Your task to perform on an android device: turn off wifi Image 0: 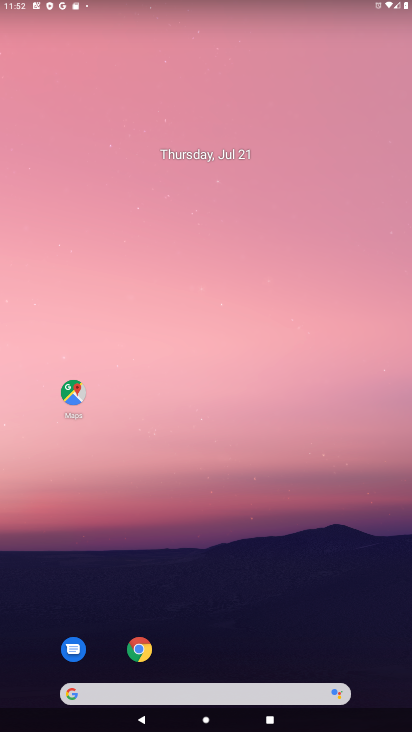
Step 0: drag from (238, 648) to (286, 218)
Your task to perform on an android device: turn off wifi Image 1: 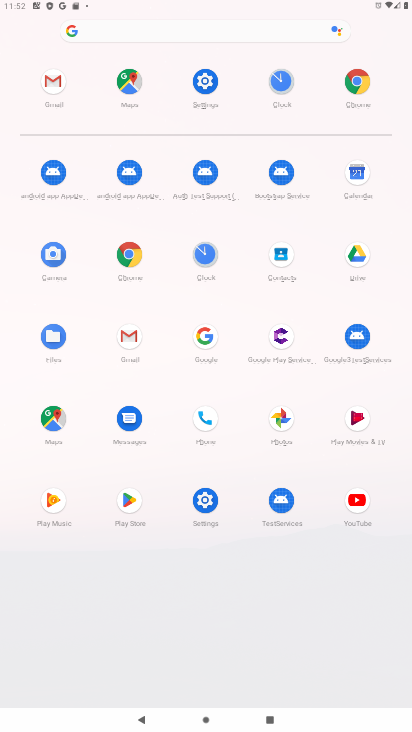
Step 1: click (202, 78)
Your task to perform on an android device: turn off wifi Image 2: 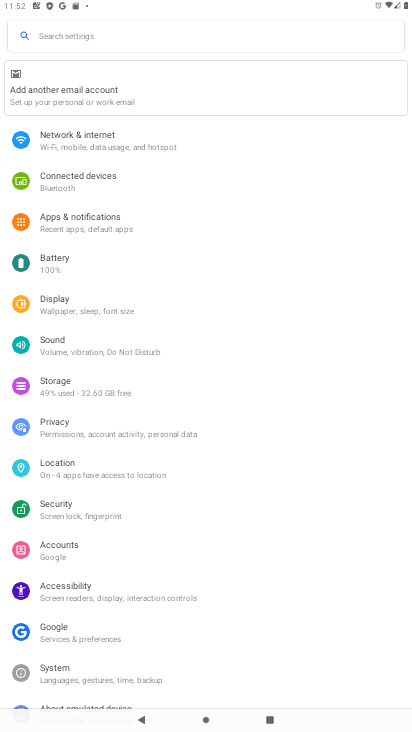
Step 2: click (59, 154)
Your task to perform on an android device: turn off wifi Image 3: 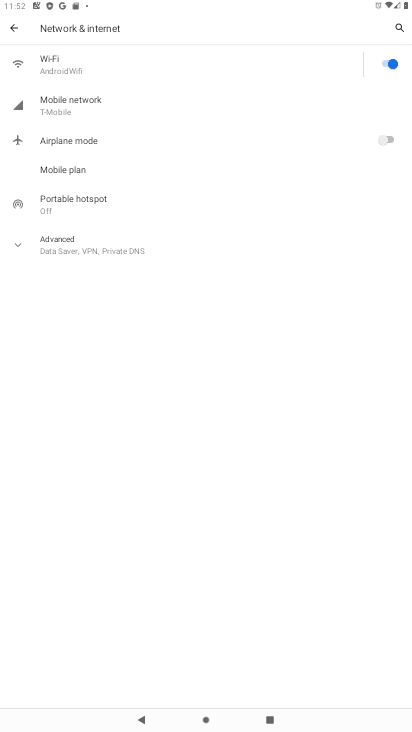
Step 3: click (90, 66)
Your task to perform on an android device: turn off wifi Image 4: 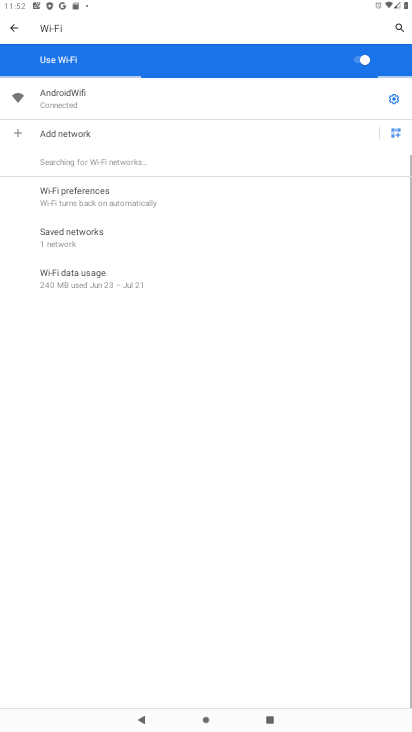
Step 4: click (359, 57)
Your task to perform on an android device: turn off wifi Image 5: 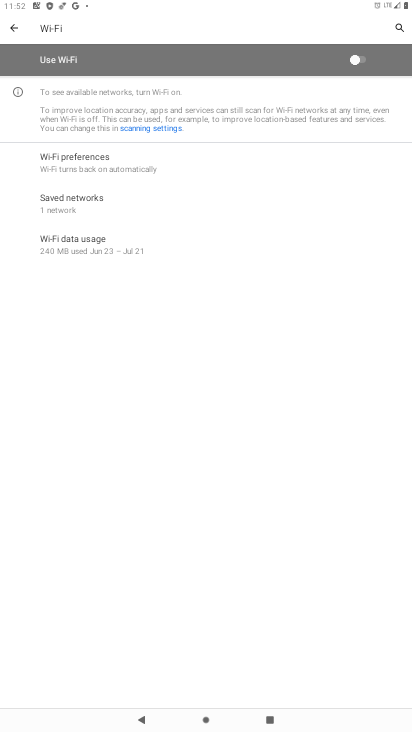
Step 5: task complete